Your task to perform on an android device: turn on data saver in the chrome app Image 0: 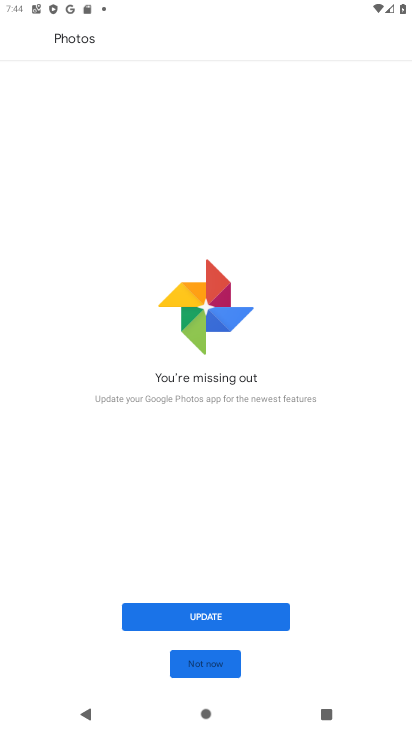
Step 0: click (204, 674)
Your task to perform on an android device: turn on data saver in the chrome app Image 1: 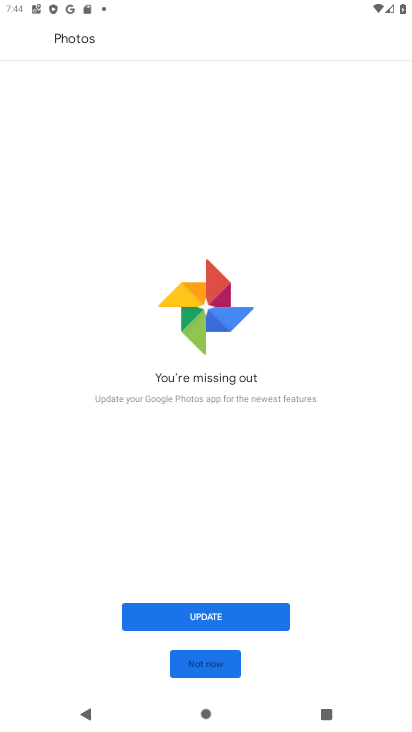
Step 1: click (204, 673)
Your task to perform on an android device: turn on data saver in the chrome app Image 2: 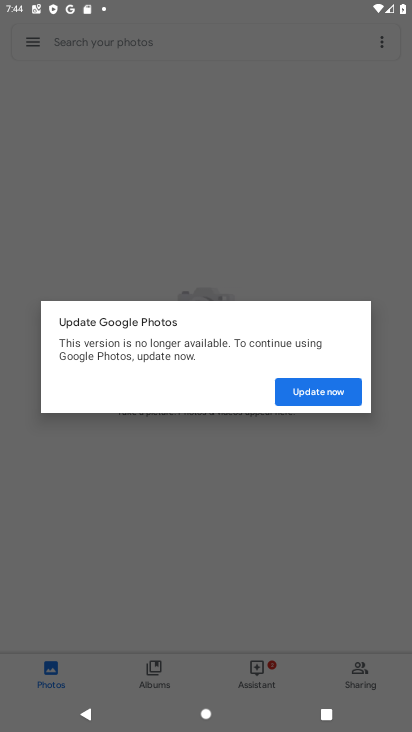
Step 2: press back button
Your task to perform on an android device: turn on data saver in the chrome app Image 3: 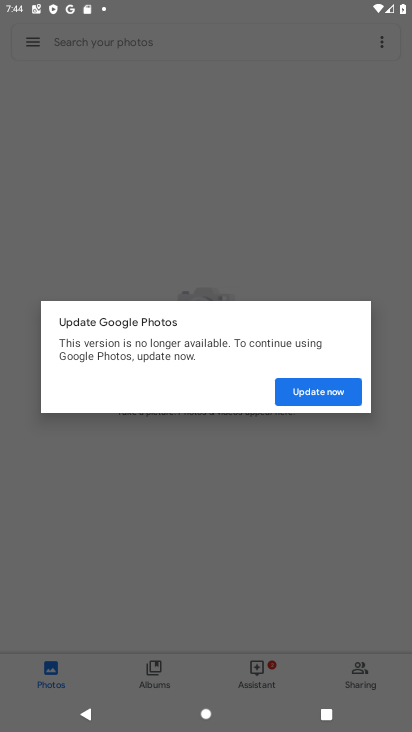
Step 3: press back button
Your task to perform on an android device: turn on data saver in the chrome app Image 4: 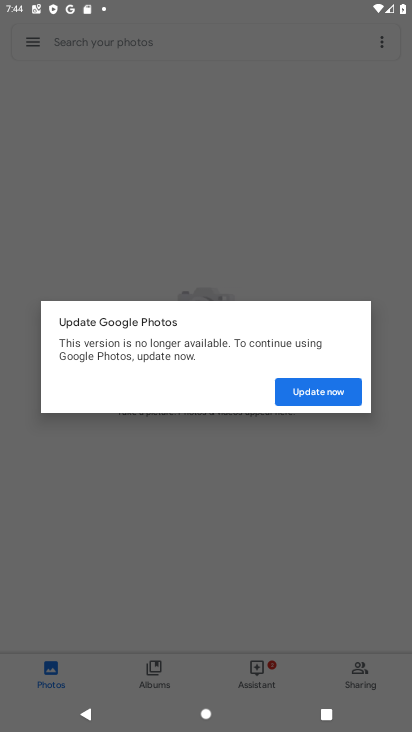
Step 4: press back button
Your task to perform on an android device: turn on data saver in the chrome app Image 5: 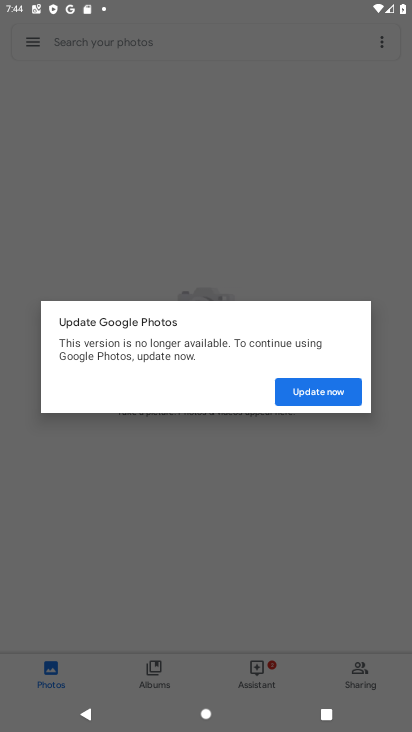
Step 5: press home button
Your task to perform on an android device: turn on data saver in the chrome app Image 6: 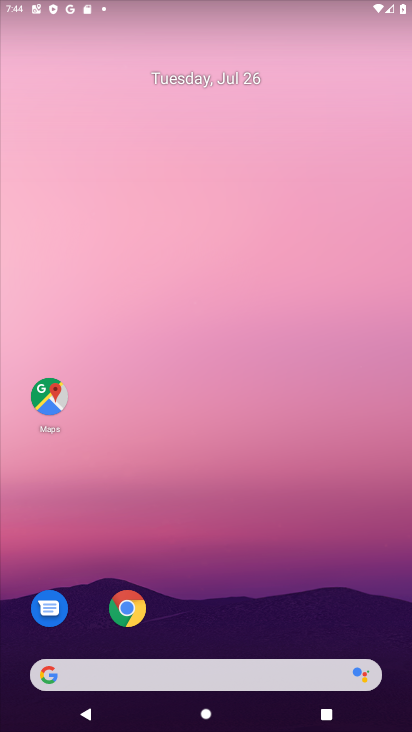
Step 6: drag from (217, 536) to (202, 265)
Your task to perform on an android device: turn on data saver in the chrome app Image 7: 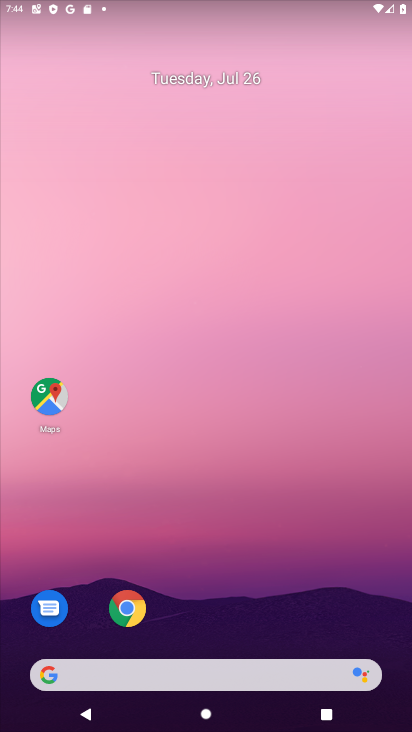
Step 7: drag from (216, 537) to (187, 68)
Your task to perform on an android device: turn on data saver in the chrome app Image 8: 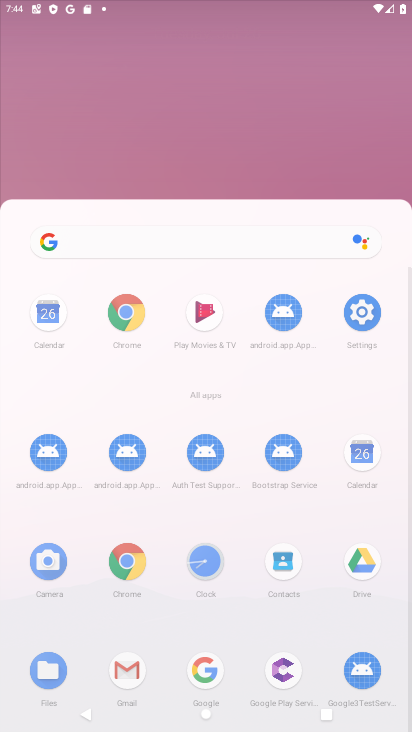
Step 8: click (194, 102)
Your task to perform on an android device: turn on data saver in the chrome app Image 9: 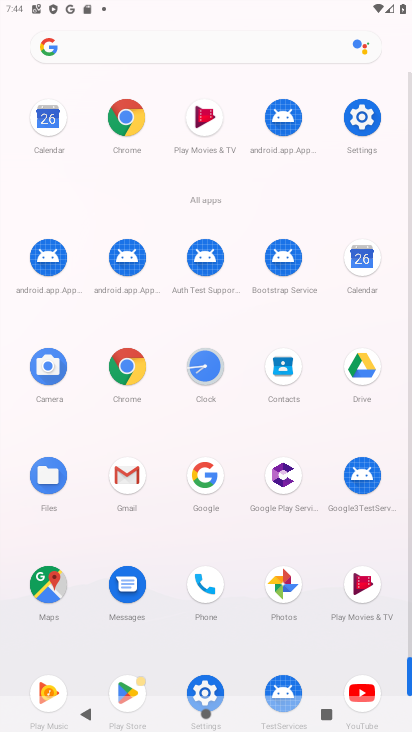
Step 9: drag from (196, 604) to (153, 187)
Your task to perform on an android device: turn on data saver in the chrome app Image 10: 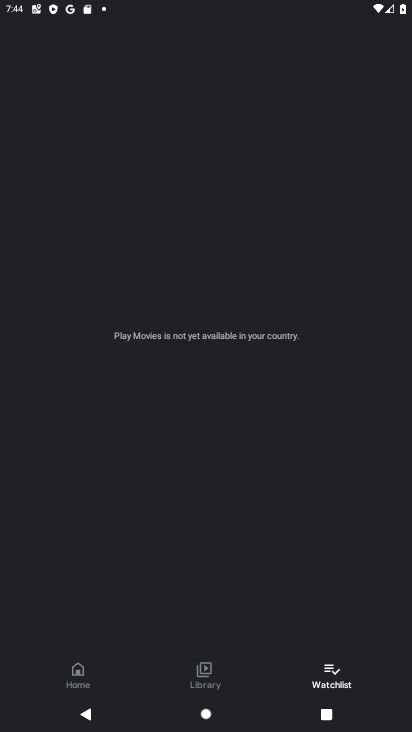
Step 10: press back button
Your task to perform on an android device: turn on data saver in the chrome app Image 11: 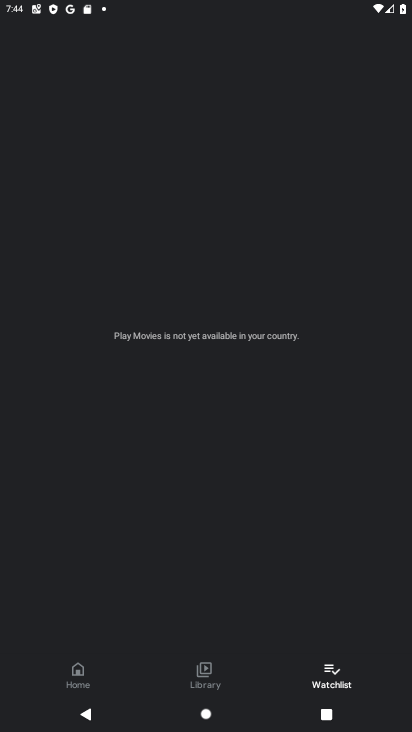
Step 11: press back button
Your task to perform on an android device: turn on data saver in the chrome app Image 12: 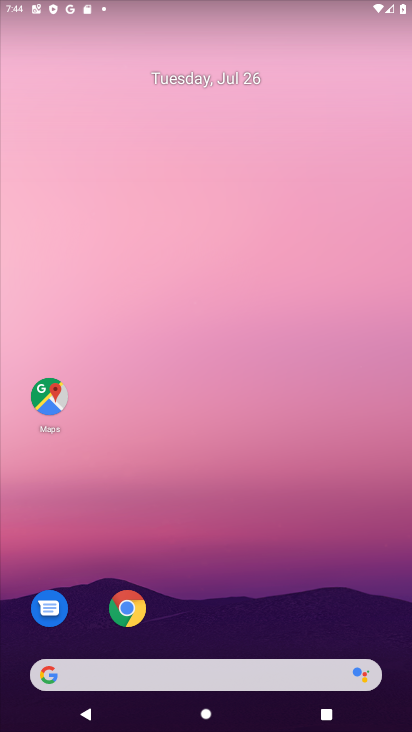
Step 12: drag from (273, 648) to (221, 168)
Your task to perform on an android device: turn on data saver in the chrome app Image 13: 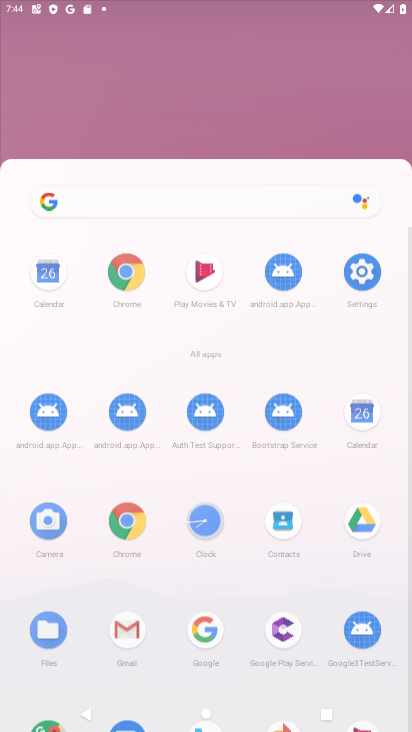
Step 13: drag from (253, 533) to (207, 50)
Your task to perform on an android device: turn on data saver in the chrome app Image 14: 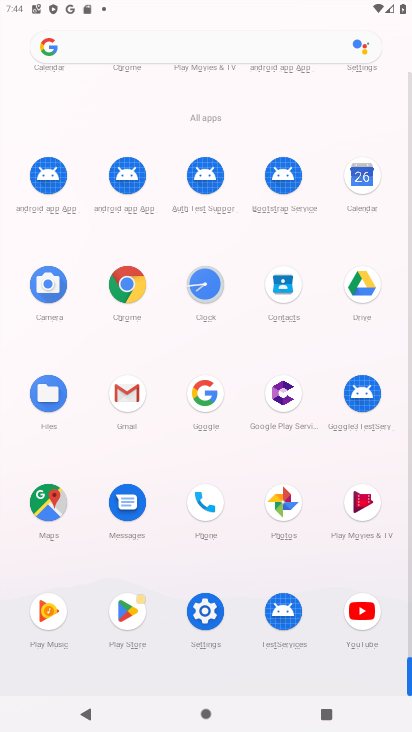
Step 14: drag from (253, 558) to (223, 235)
Your task to perform on an android device: turn on data saver in the chrome app Image 15: 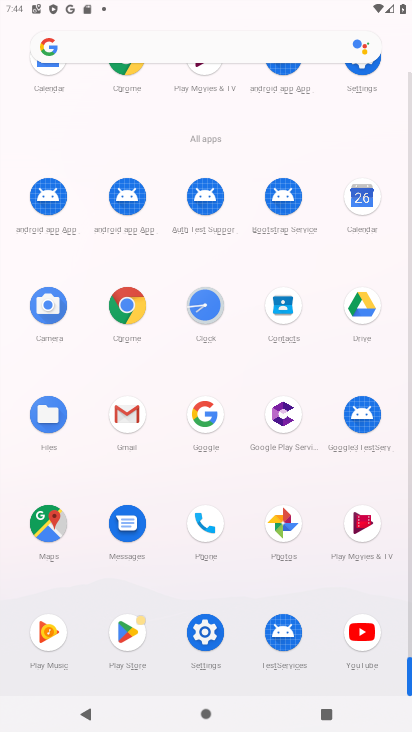
Step 15: click (126, 296)
Your task to perform on an android device: turn on data saver in the chrome app Image 16: 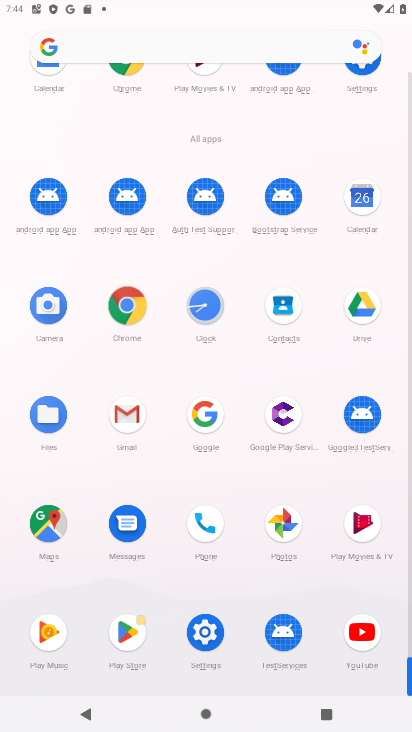
Step 16: click (126, 296)
Your task to perform on an android device: turn on data saver in the chrome app Image 17: 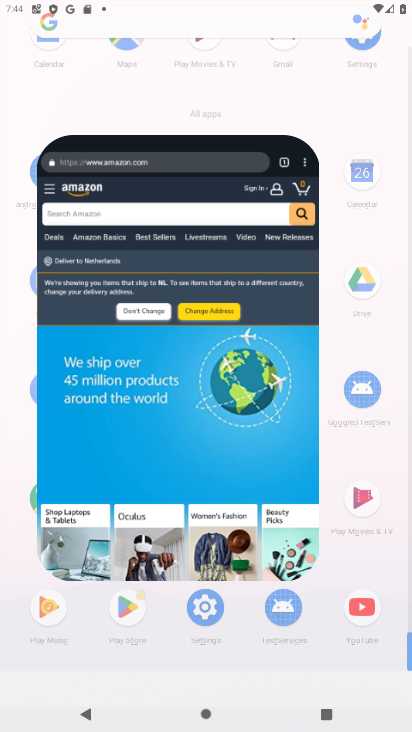
Step 17: click (126, 296)
Your task to perform on an android device: turn on data saver in the chrome app Image 18: 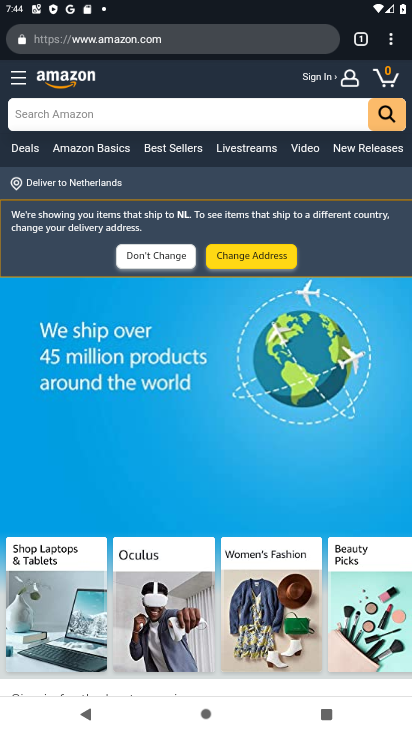
Step 18: click (387, 35)
Your task to perform on an android device: turn on data saver in the chrome app Image 19: 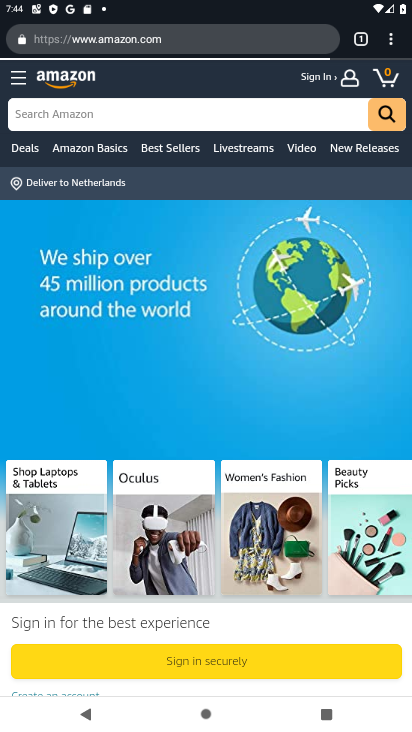
Step 19: drag from (391, 41) to (234, 461)
Your task to perform on an android device: turn on data saver in the chrome app Image 20: 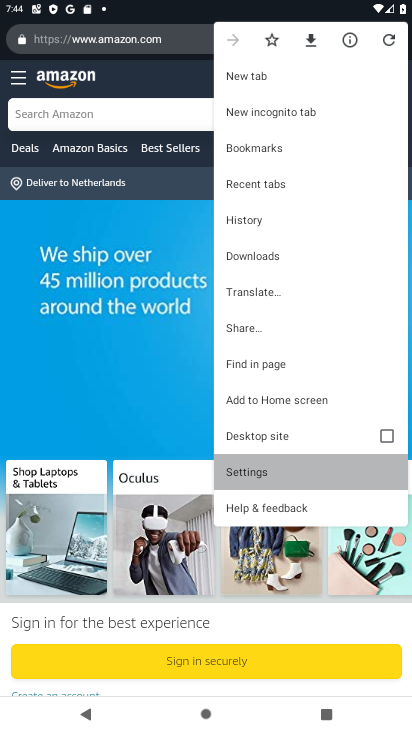
Step 20: click (240, 455)
Your task to perform on an android device: turn on data saver in the chrome app Image 21: 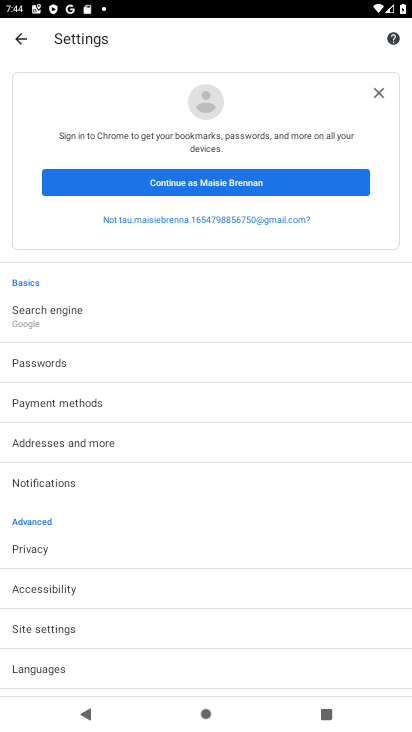
Step 21: drag from (57, 557) to (68, 303)
Your task to perform on an android device: turn on data saver in the chrome app Image 22: 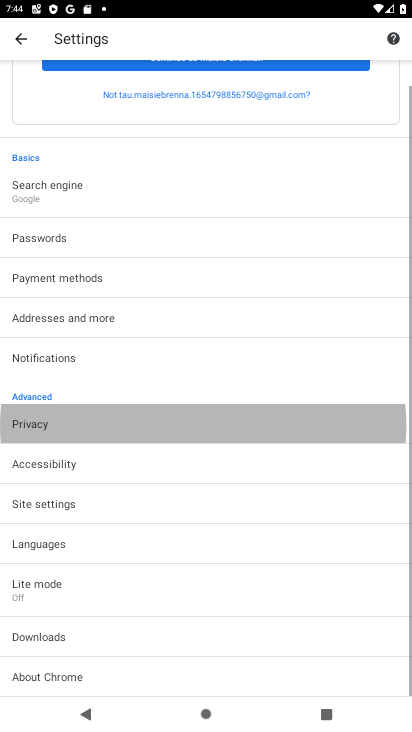
Step 22: drag from (69, 560) to (69, 404)
Your task to perform on an android device: turn on data saver in the chrome app Image 23: 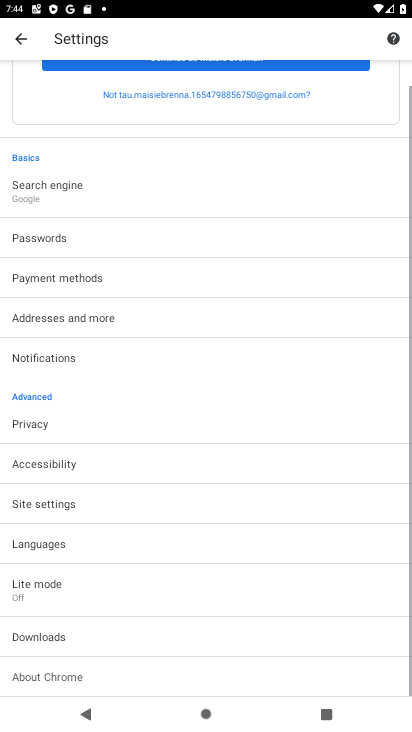
Step 23: drag from (71, 550) to (75, 353)
Your task to perform on an android device: turn on data saver in the chrome app Image 24: 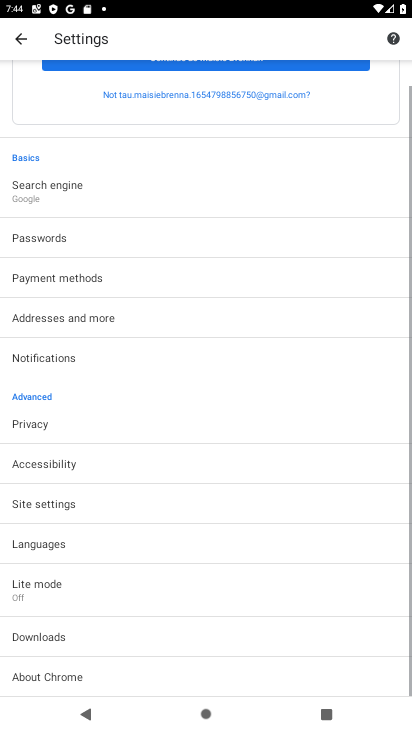
Step 24: click (36, 586)
Your task to perform on an android device: turn on data saver in the chrome app Image 25: 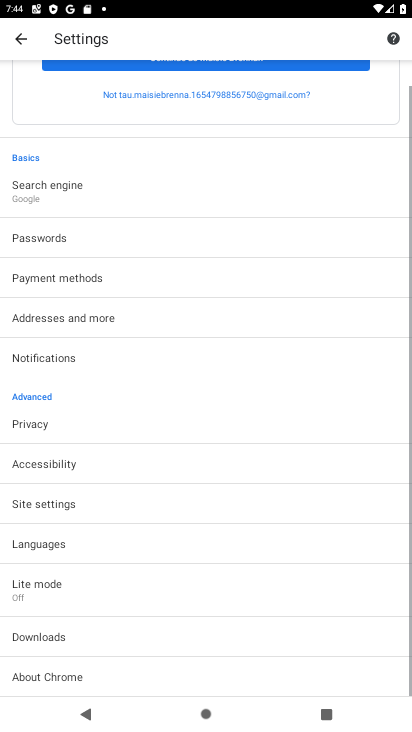
Step 25: click (36, 586)
Your task to perform on an android device: turn on data saver in the chrome app Image 26: 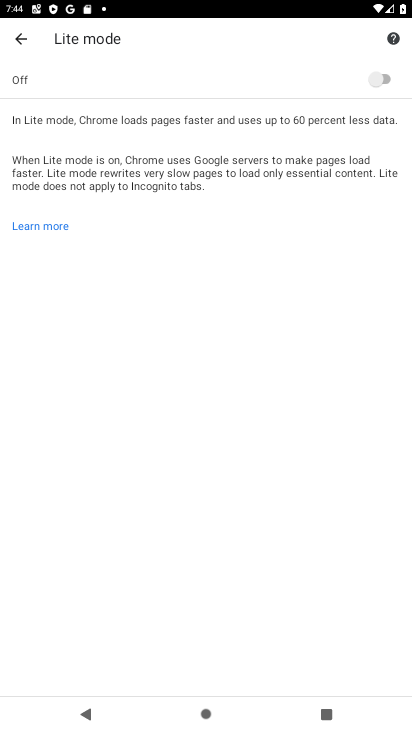
Step 26: click (376, 77)
Your task to perform on an android device: turn on data saver in the chrome app Image 27: 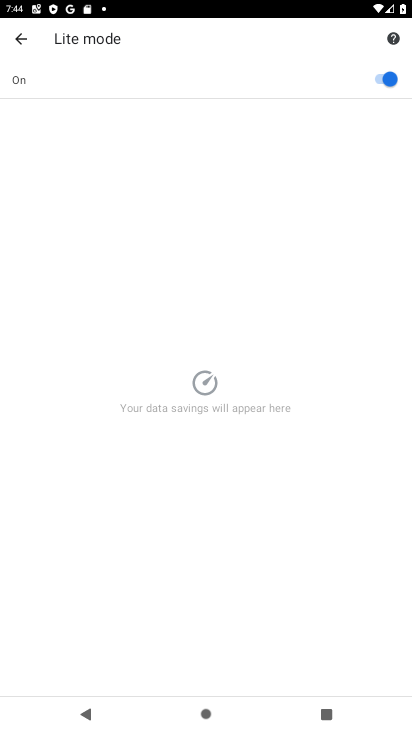
Step 27: task complete